Your task to perform on an android device: Go to sound settings Image 0: 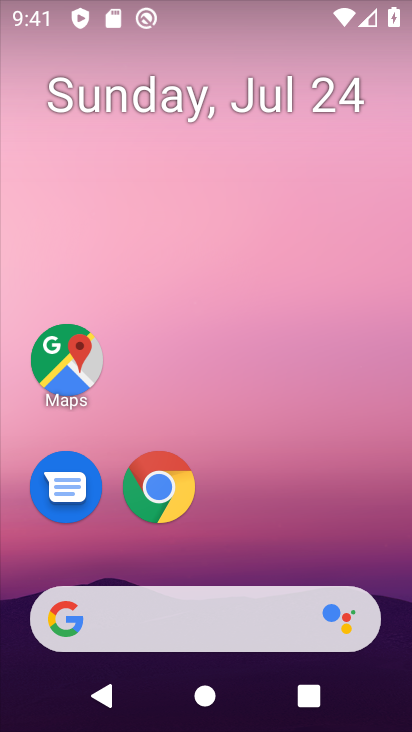
Step 0: drag from (304, 525) to (275, 19)
Your task to perform on an android device: Go to sound settings Image 1: 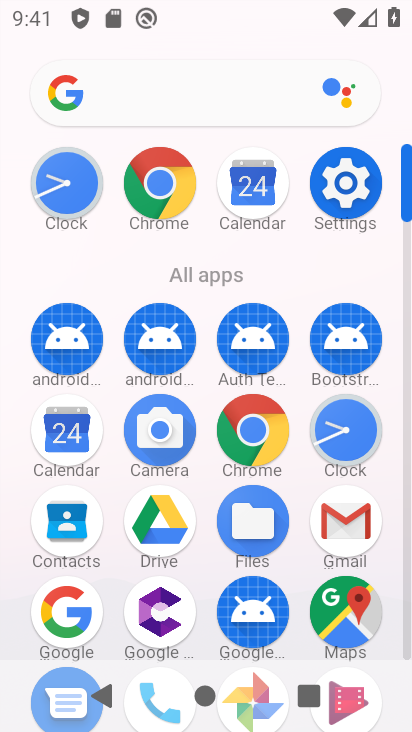
Step 1: click (338, 188)
Your task to perform on an android device: Go to sound settings Image 2: 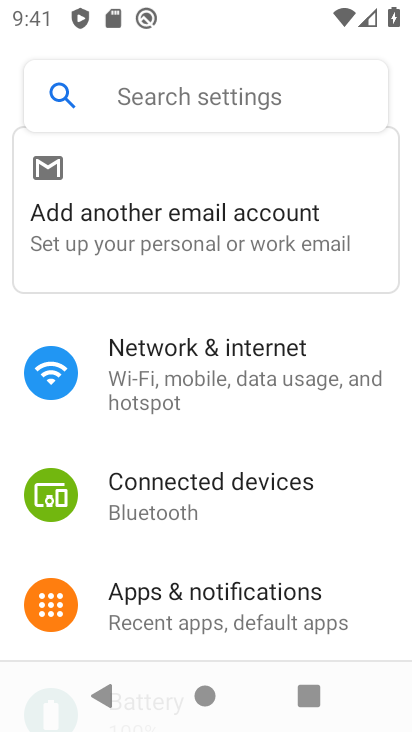
Step 2: drag from (182, 631) to (266, 88)
Your task to perform on an android device: Go to sound settings Image 3: 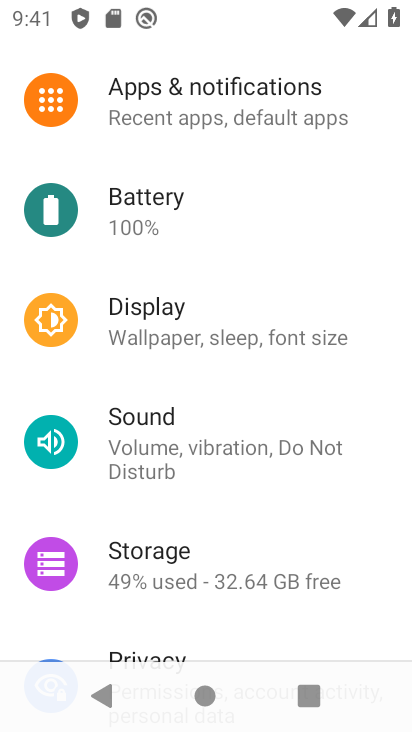
Step 3: click (171, 443)
Your task to perform on an android device: Go to sound settings Image 4: 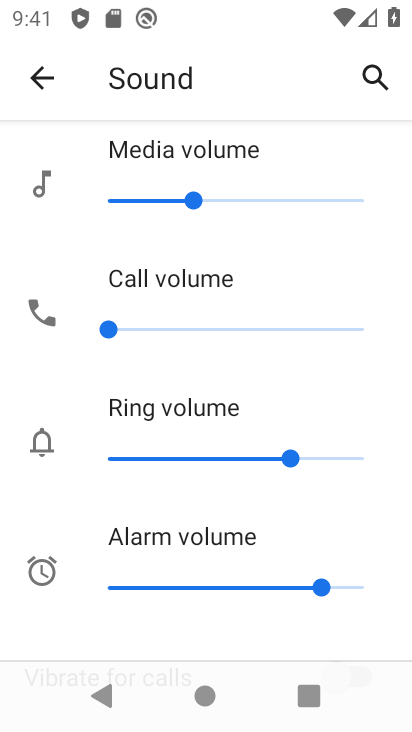
Step 4: task complete